Your task to perform on an android device: Turn on the flashlight Image 0: 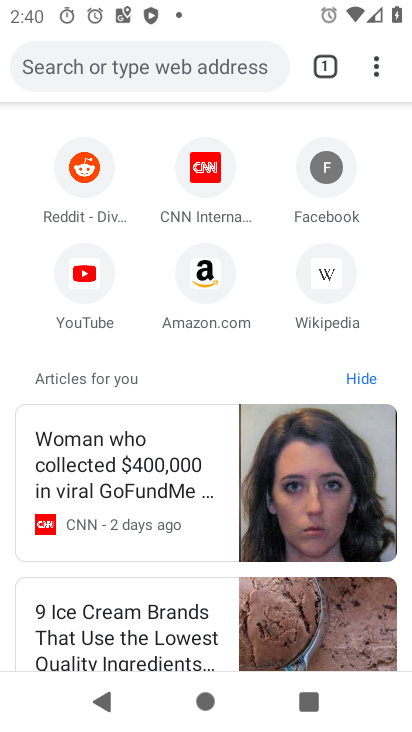
Step 0: press home button
Your task to perform on an android device: Turn on the flashlight Image 1: 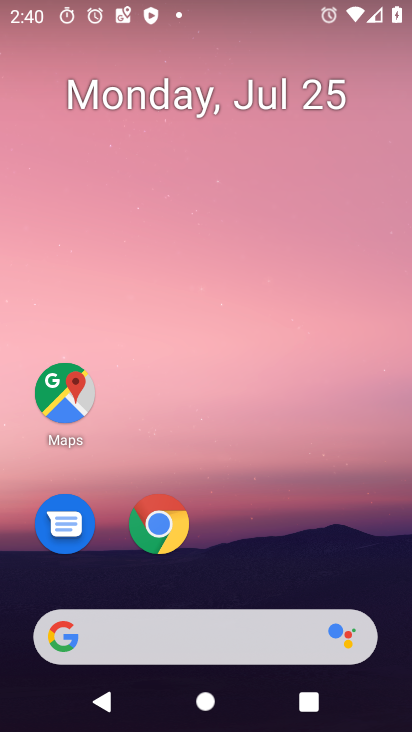
Step 1: task complete